Your task to perform on an android device: toggle notification dots Image 0: 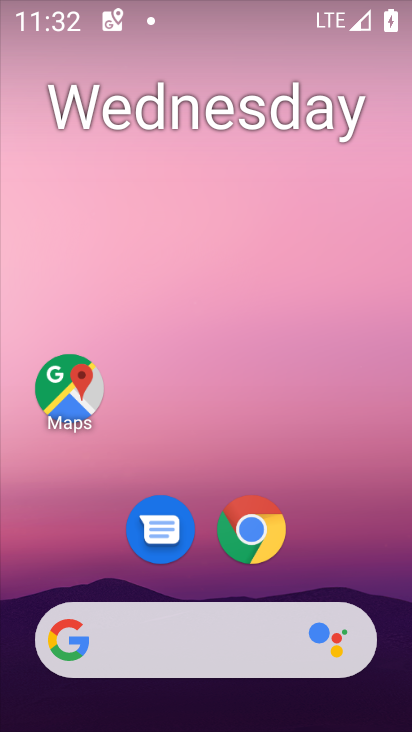
Step 0: drag from (394, 623) to (343, 125)
Your task to perform on an android device: toggle notification dots Image 1: 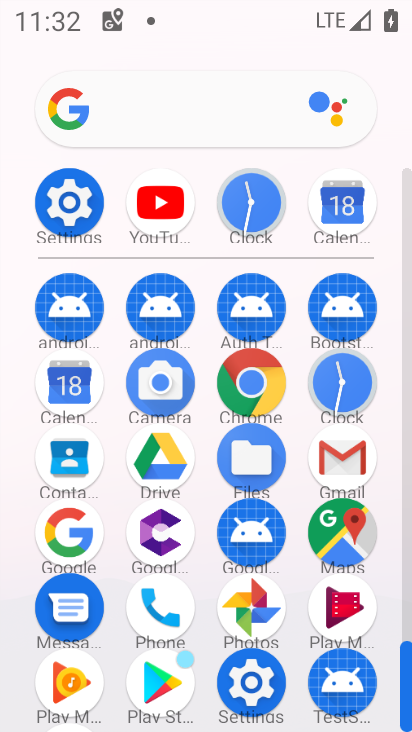
Step 1: click (249, 683)
Your task to perform on an android device: toggle notification dots Image 2: 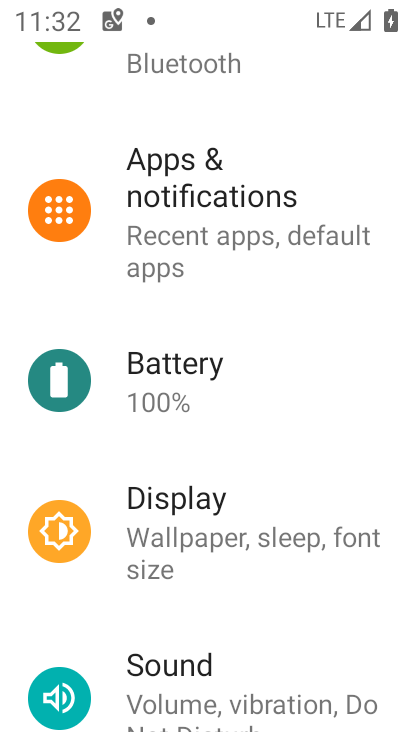
Step 2: click (184, 216)
Your task to perform on an android device: toggle notification dots Image 3: 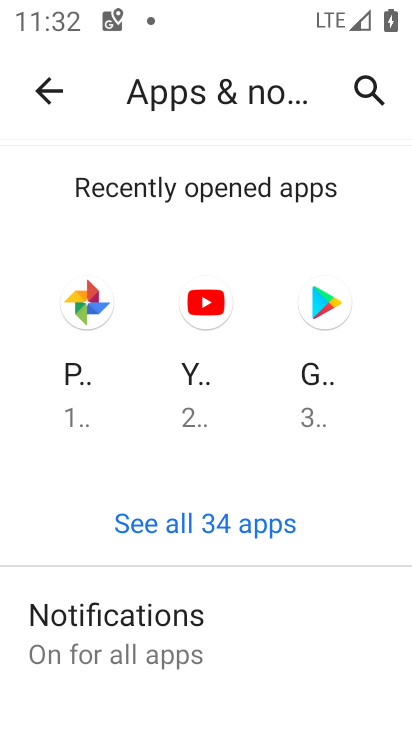
Step 3: click (122, 623)
Your task to perform on an android device: toggle notification dots Image 4: 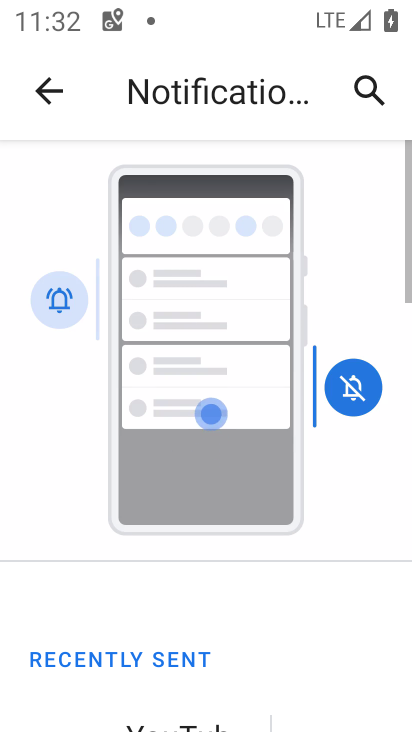
Step 4: drag from (306, 651) to (288, 248)
Your task to perform on an android device: toggle notification dots Image 5: 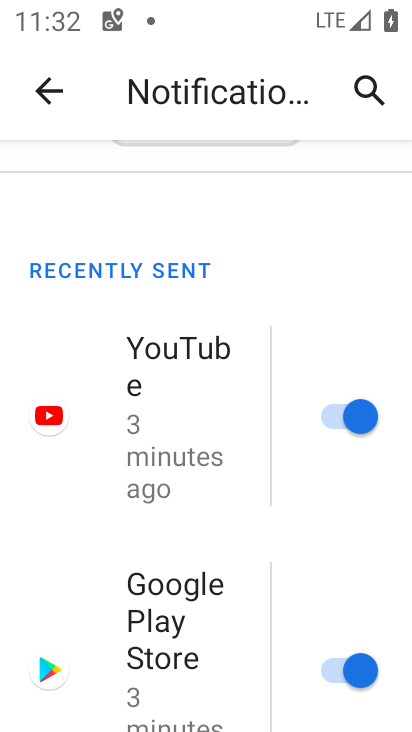
Step 5: drag from (269, 622) to (259, 275)
Your task to perform on an android device: toggle notification dots Image 6: 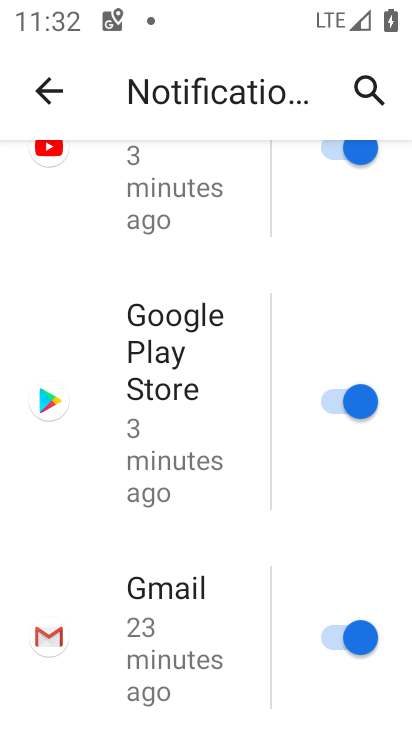
Step 6: drag from (254, 635) to (236, 222)
Your task to perform on an android device: toggle notification dots Image 7: 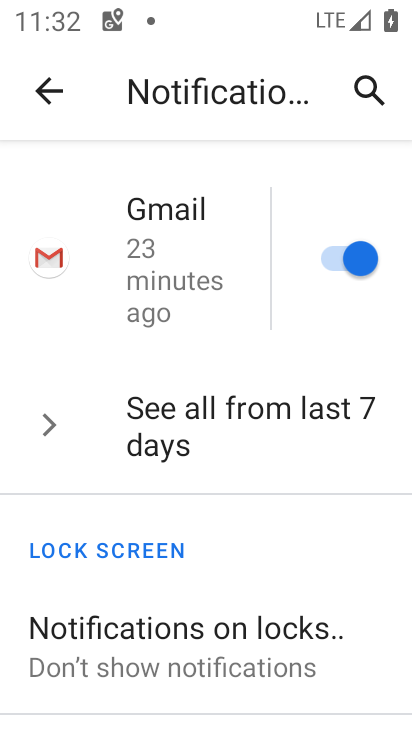
Step 7: drag from (256, 643) to (245, 227)
Your task to perform on an android device: toggle notification dots Image 8: 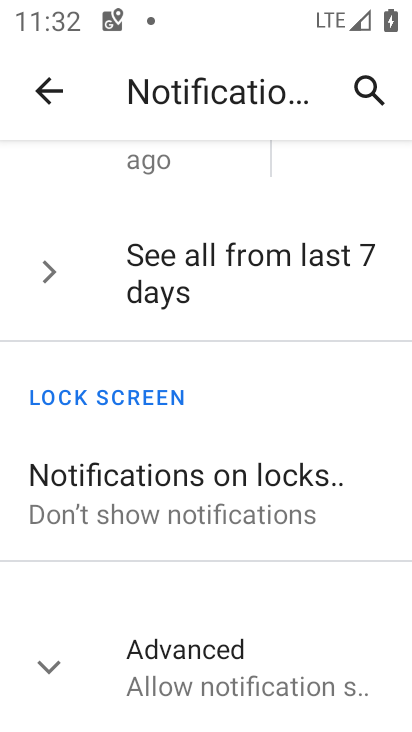
Step 8: click (51, 662)
Your task to perform on an android device: toggle notification dots Image 9: 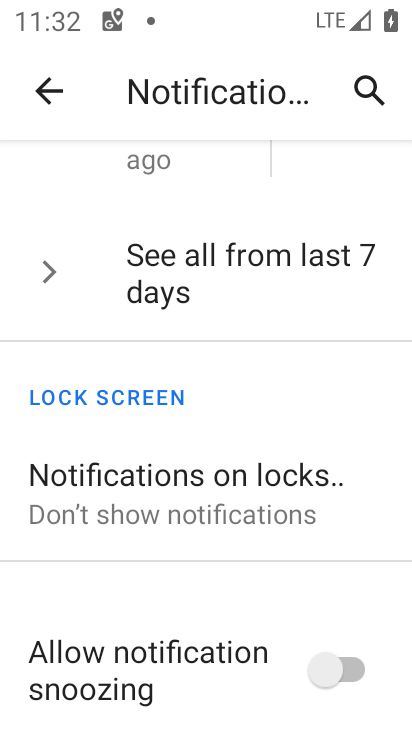
Step 9: drag from (271, 679) to (266, 255)
Your task to perform on an android device: toggle notification dots Image 10: 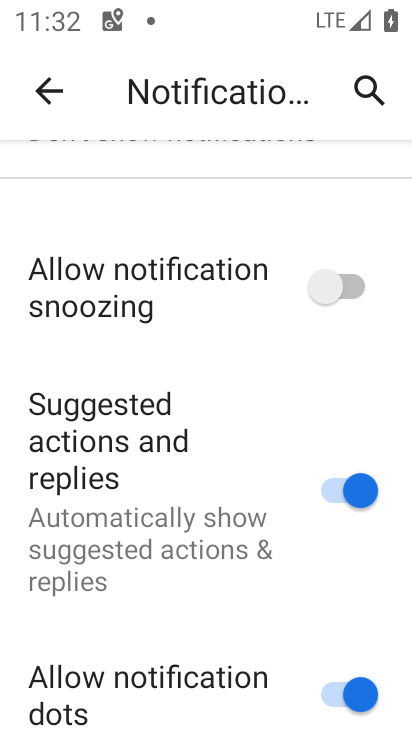
Step 10: drag from (276, 656) to (247, 290)
Your task to perform on an android device: toggle notification dots Image 11: 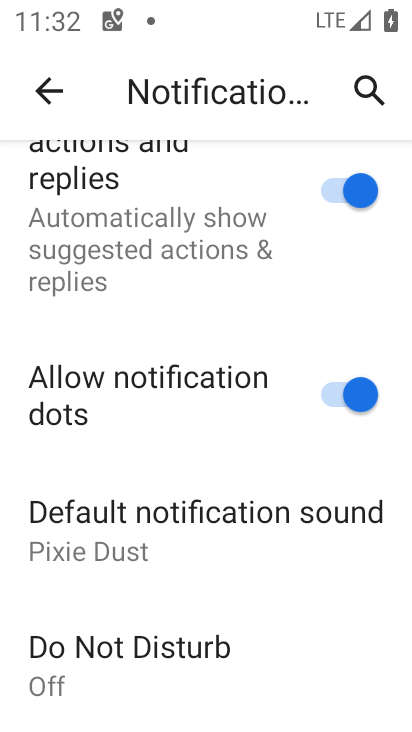
Step 11: click (340, 397)
Your task to perform on an android device: toggle notification dots Image 12: 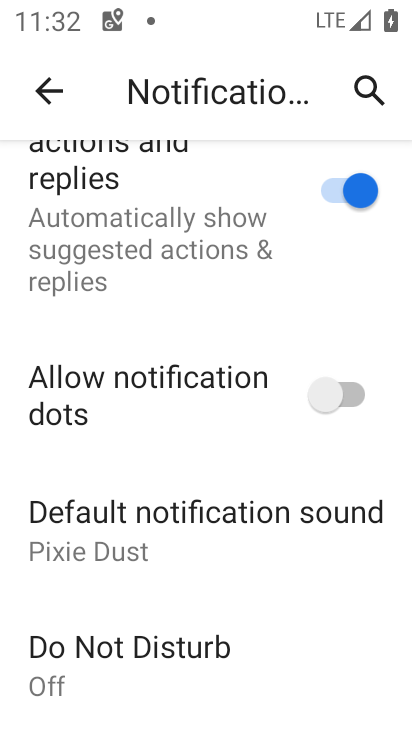
Step 12: task complete